Your task to perform on an android device: find snoozed emails in the gmail app Image 0: 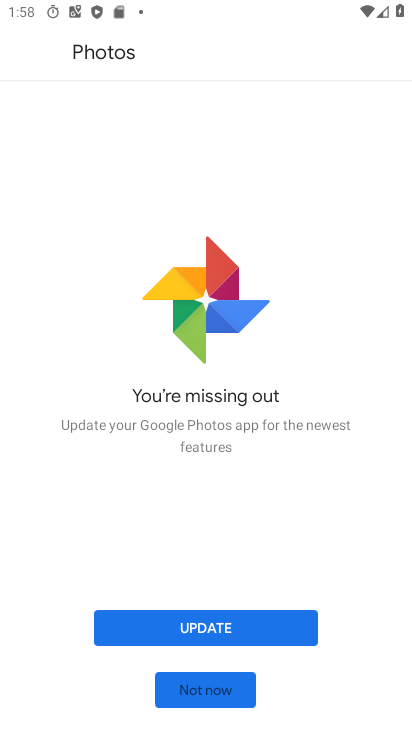
Step 0: press back button
Your task to perform on an android device: find snoozed emails in the gmail app Image 1: 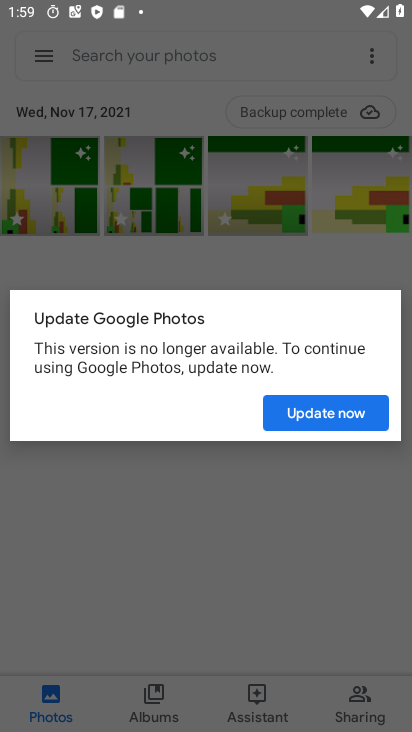
Step 1: press home button
Your task to perform on an android device: find snoozed emails in the gmail app Image 2: 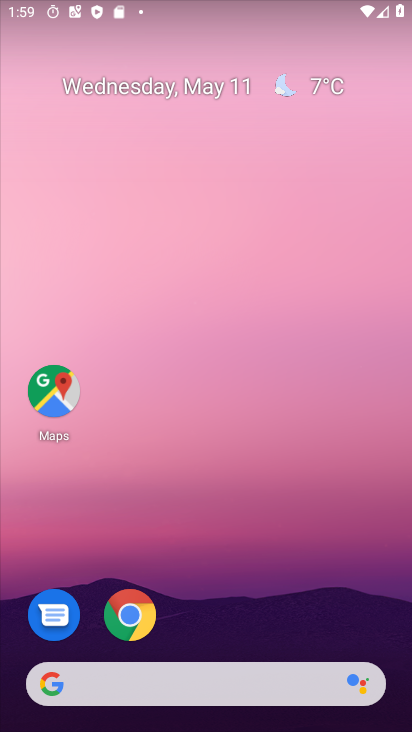
Step 2: drag from (215, 676) to (221, 239)
Your task to perform on an android device: find snoozed emails in the gmail app Image 3: 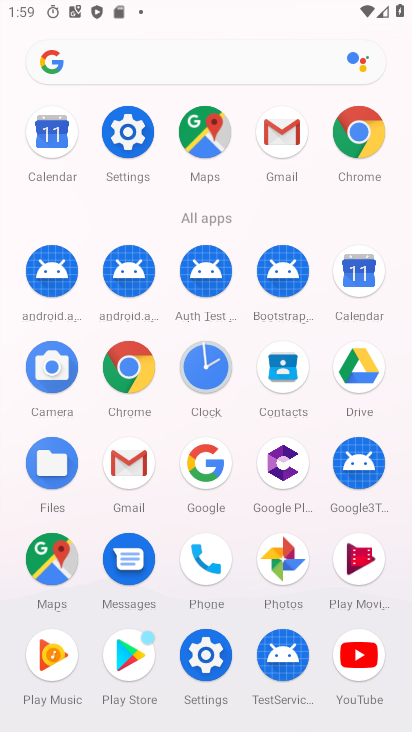
Step 3: click (127, 453)
Your task to perform on an android device: find snoozed emails in the gmail app Image 4: 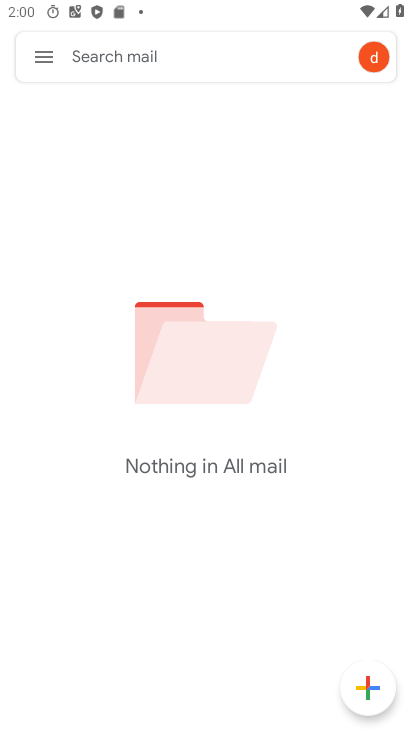
Step 4: click (46, 59)
Your task to perform on an android device: find snoozed emails in the gmail app Image 5: 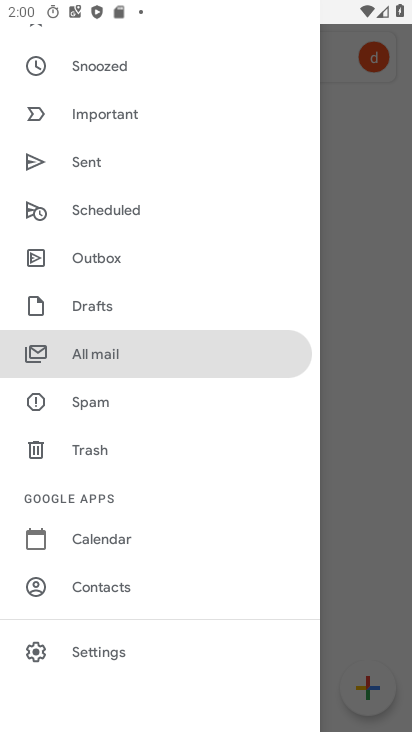
Step 5: click (117, 74)
Your task to perform on an android device: find snoozed emails in the gmail app Image 6: 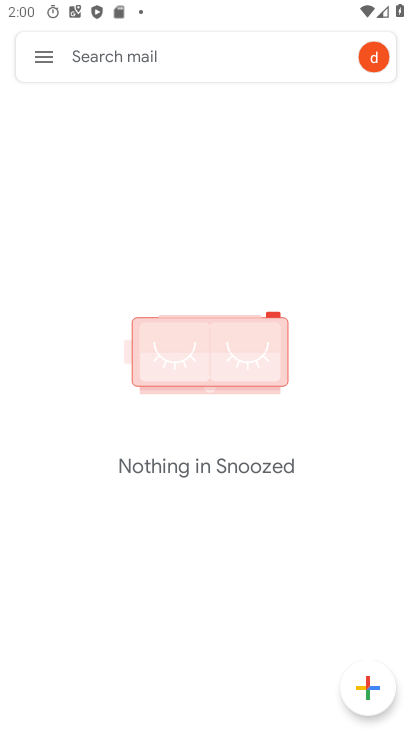
Step 6: task complete